Your task to perform on an android device: Open settings on Google Maps Image 0: 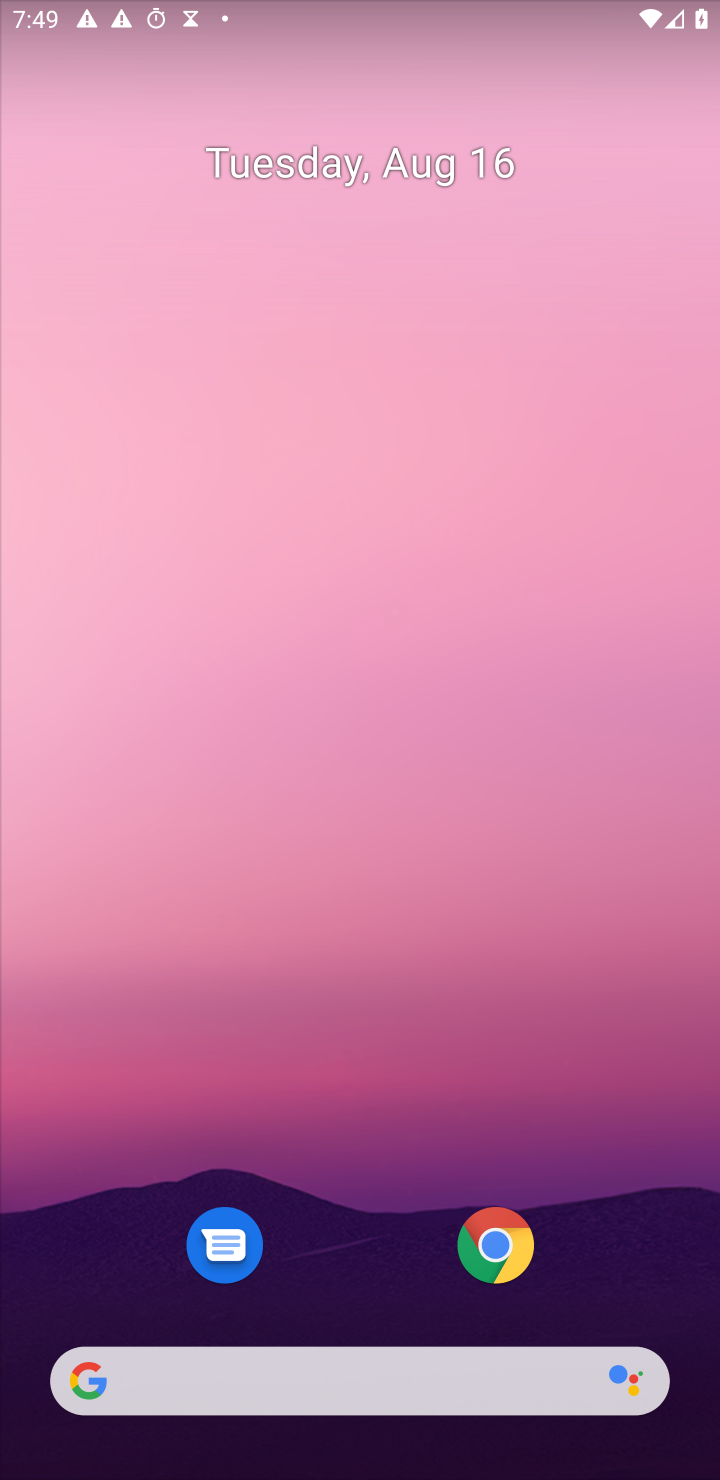
Step 0: drag from (404, 1209) to (236, 277)
Your task to perform on an android device: Open settings on Google Maps Image 1: 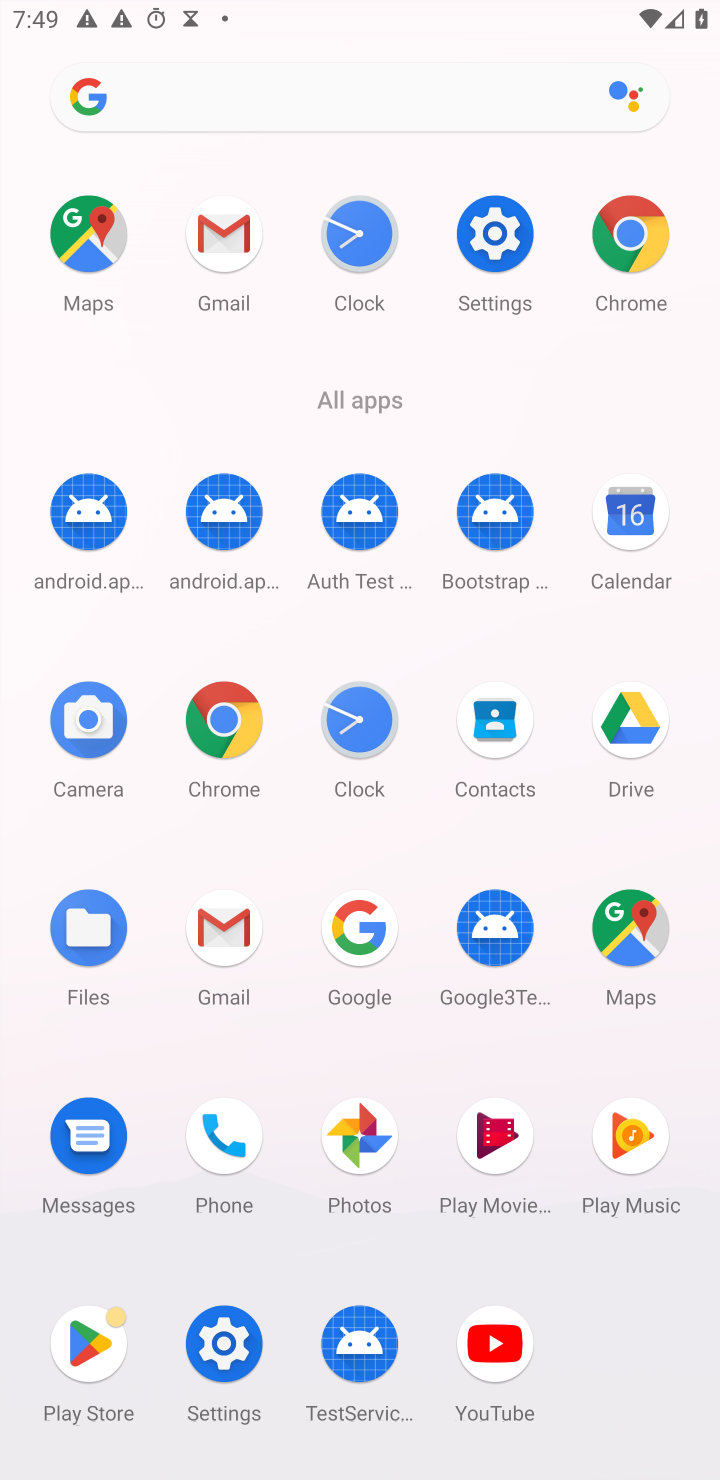
Step 1: click (631, 915)
Your task to perform on an android device: Open settings on Google Maps Image 2: 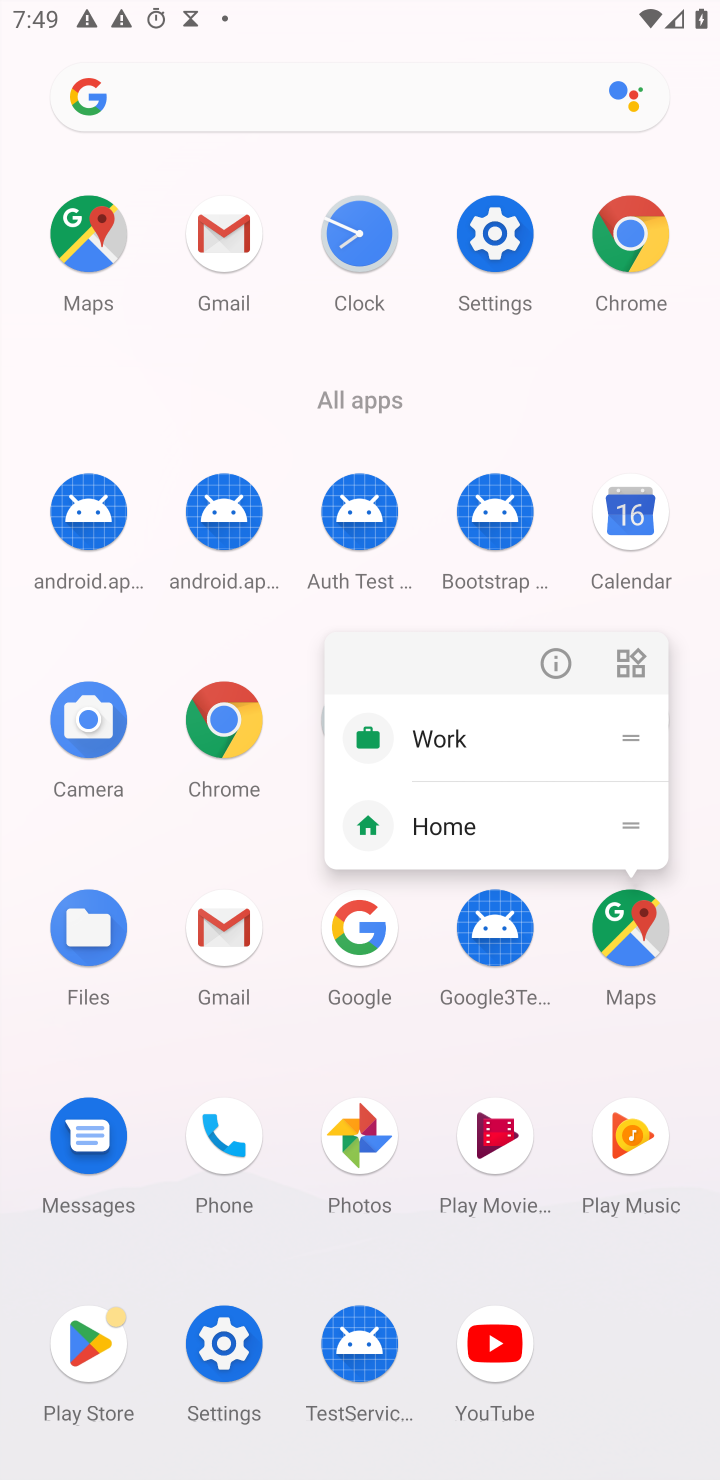
Step 2: click (641, 930)
Your task to perform on an android device: Open settings on Google Maps Image 3: 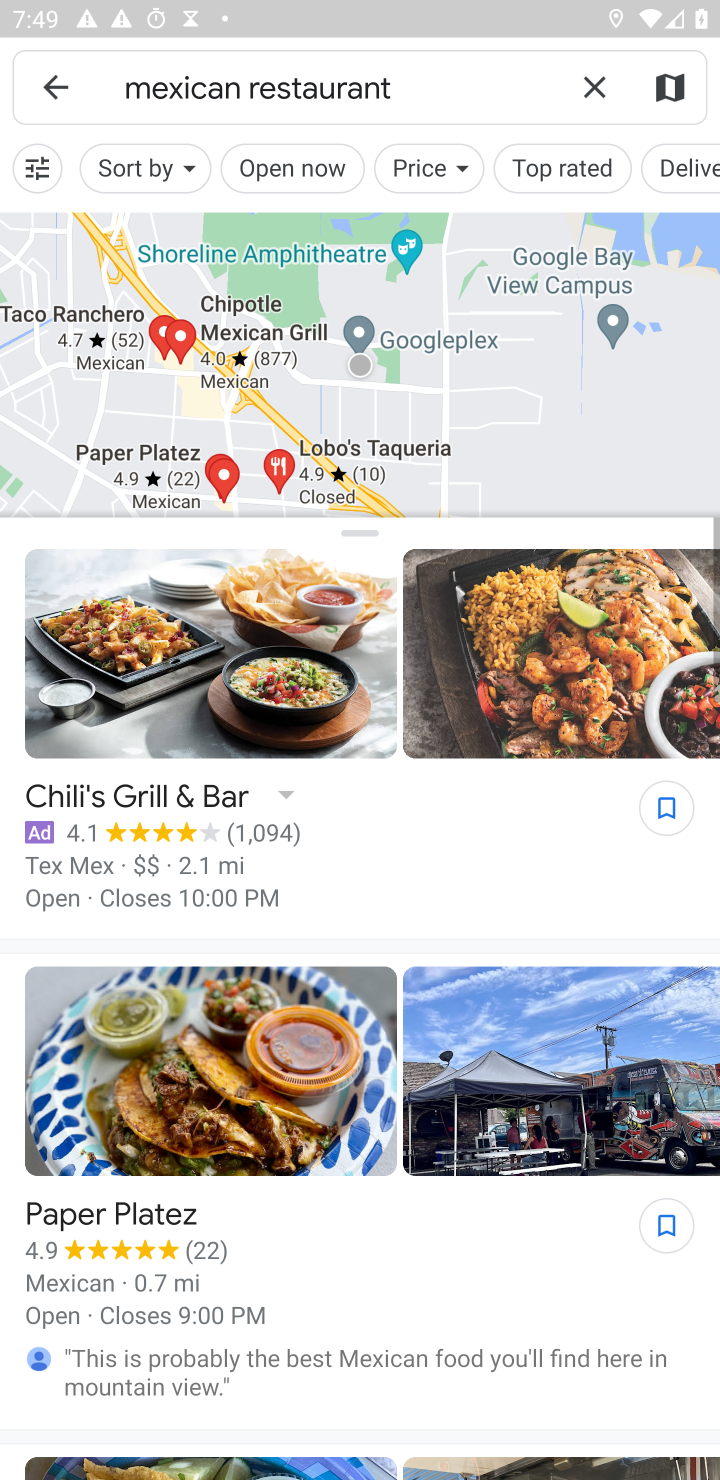
Step 3: click (47, 88)
Your task to perform on an android device: Open settings on Google Maps Image 4: 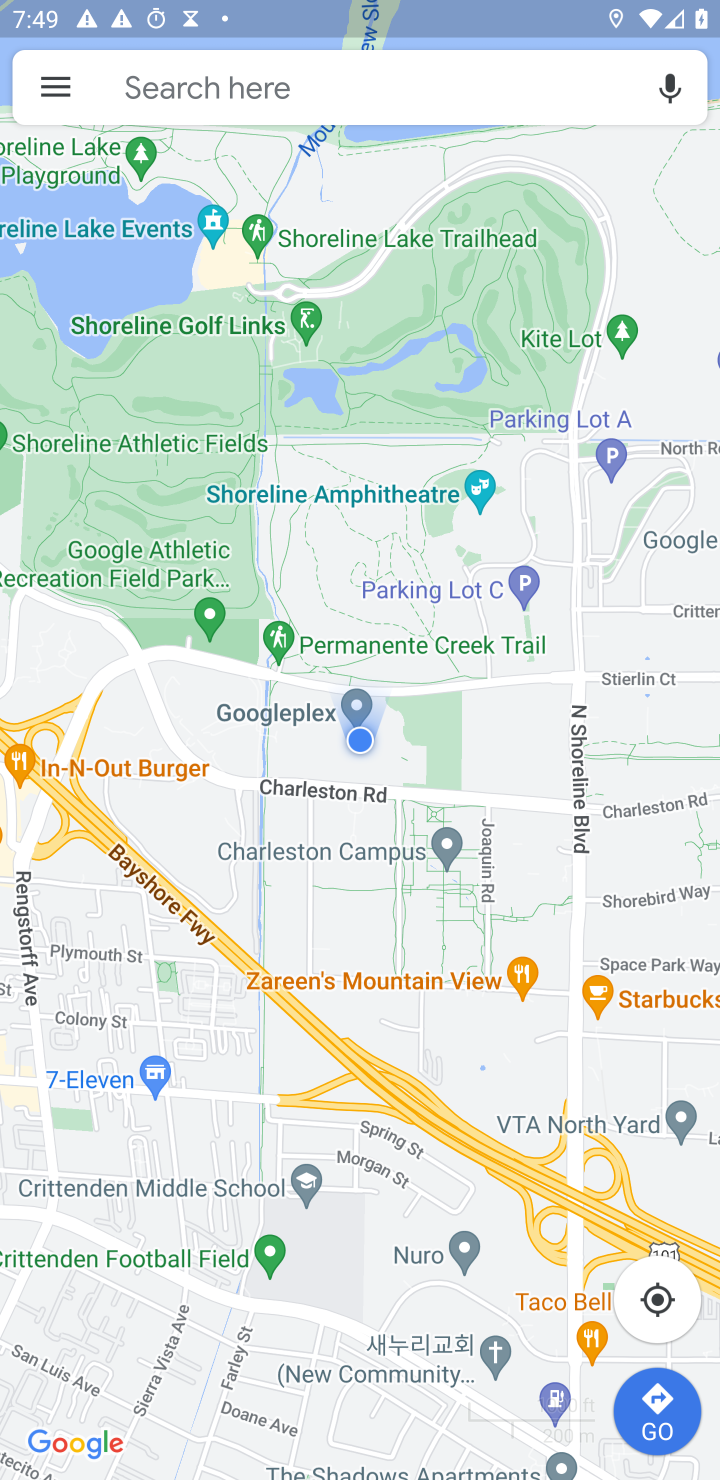
Step 4: click (48, 90)
Your task to perform on an android device: Open settings on Google Maps Image 5: 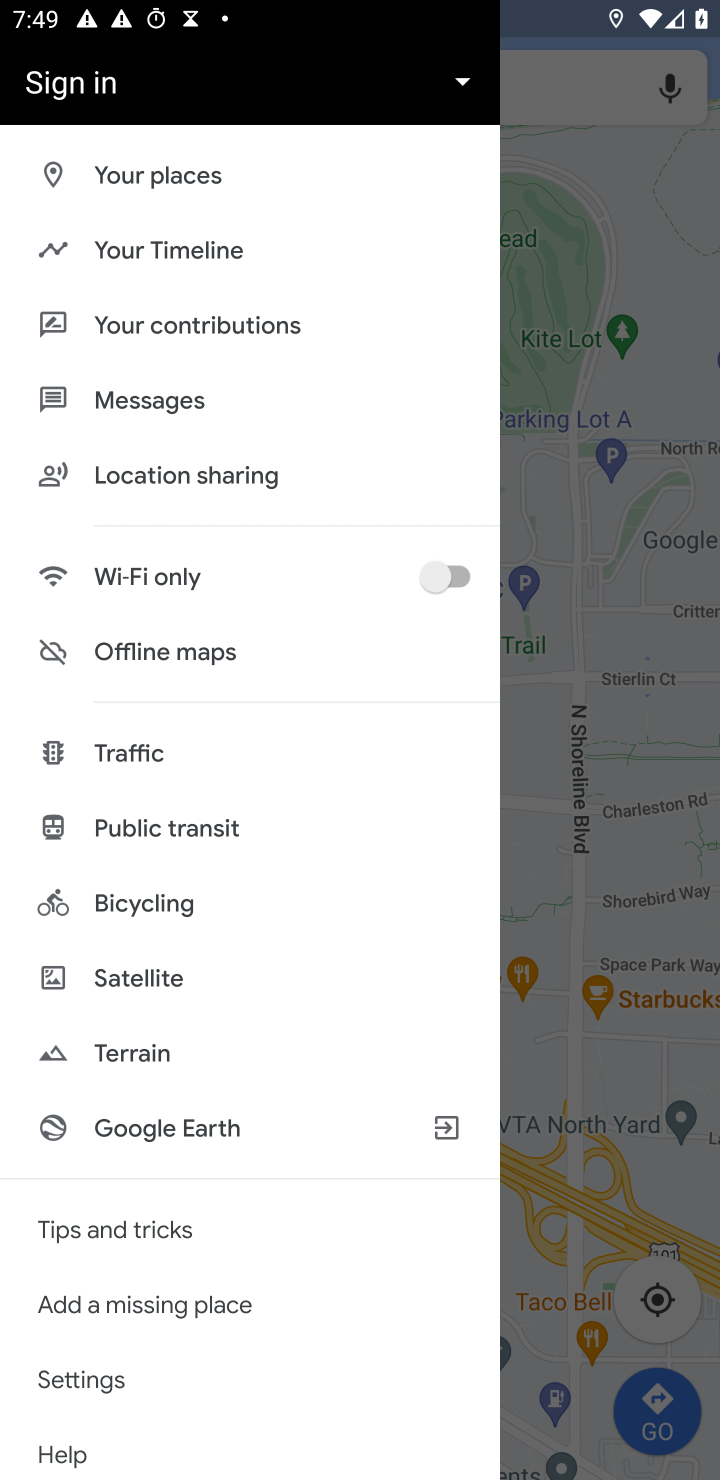
Step 5: click (90, 1376)
Your task to perform on an android device: Open settings on Google Maps Image 6: 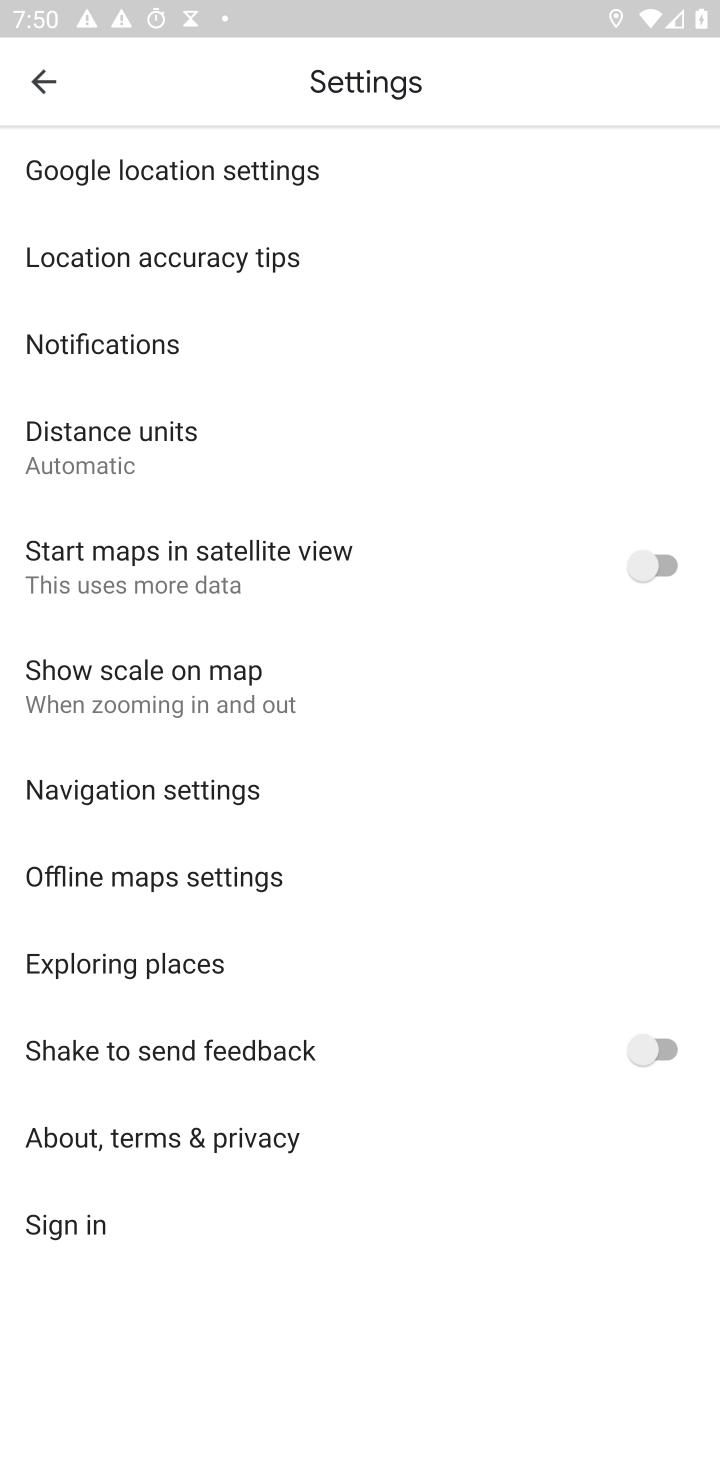
Step 6: task complete